Your task to perform on an android device: toggle data saver in the chrome app Image 0: 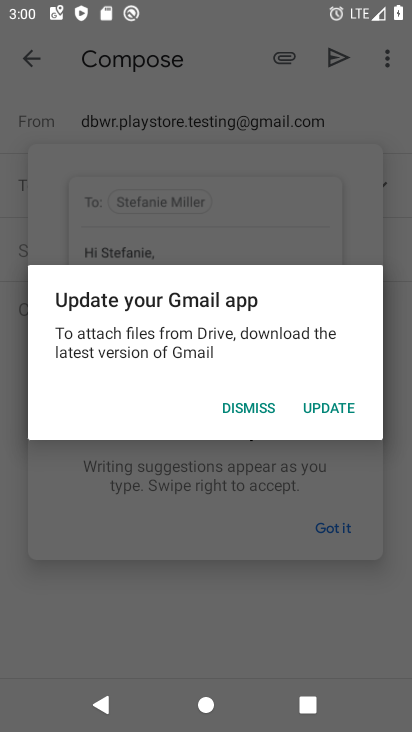
Step 0: press home button
Your task to perform on an android device: toggle data saver in the chrome app Image 1: 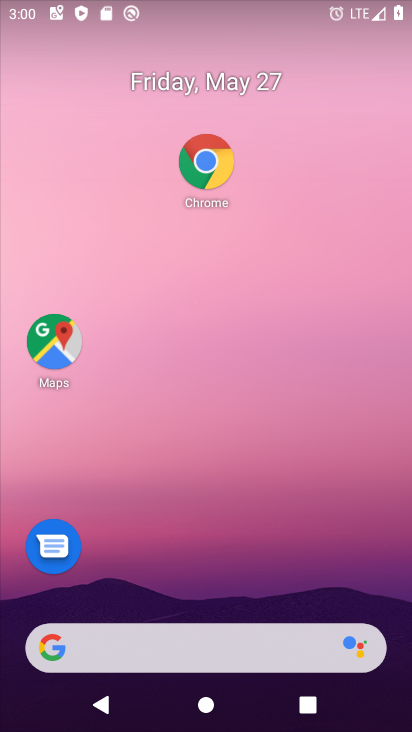
Step 1: click (210, 161)
Your task to perform on an android device: toggle data saver in the chrome app Image 2: 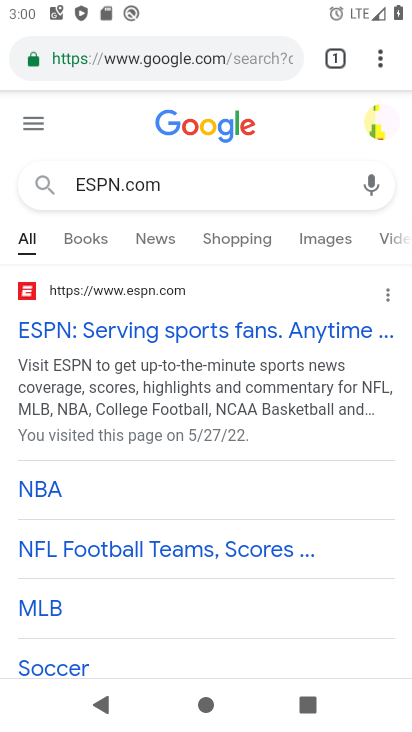
Step 2: click (383, 55)
Your task to perform on an android device: toggle data saver in the chrome app Image 3: 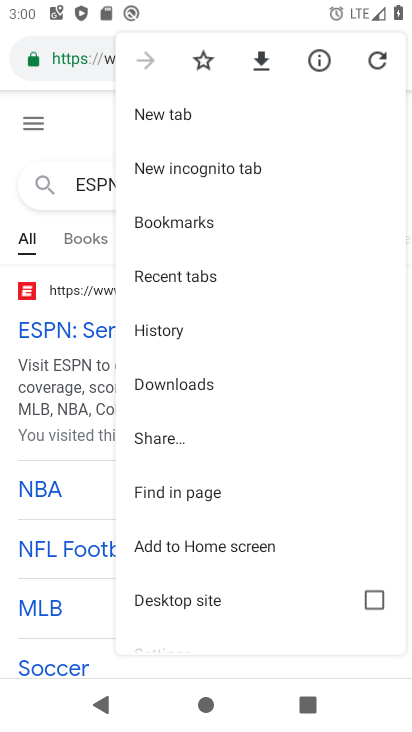
Step 3: drag from (157, 511) to (189, 201)
Your task to perform on an android device: toggle data saver in the chrome app Image 4: 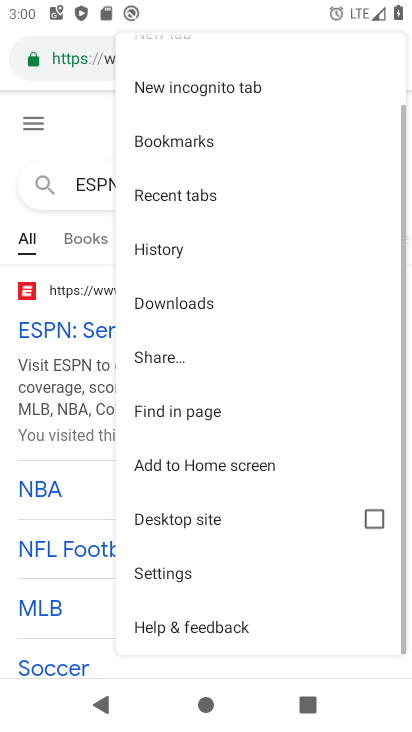
Step 4: click (162, 576)
Your task to perform on an android device: toggle data saver in the chrome app Image 5: 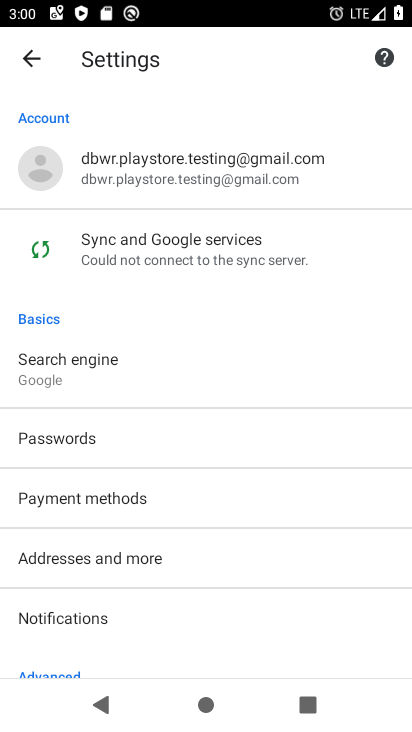
Step 5: drag from (46, 650) to (121, 243)
Your task to perform on an android device: toggle data saver in the chrome app Image 6: 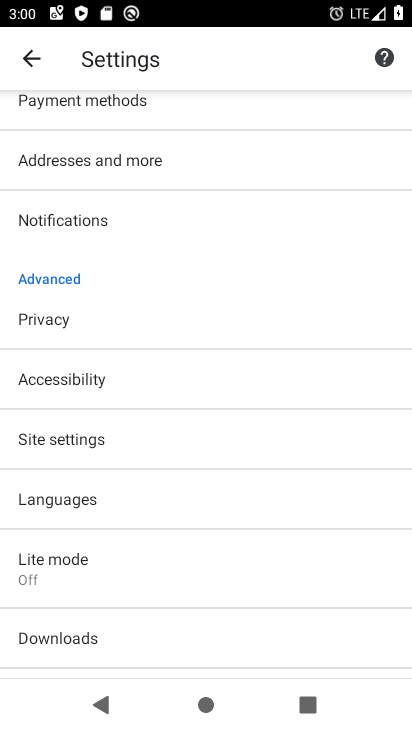
Step 6: click (51, 577)
Your task to perform on an android device: toggle data saver in the chrome app Image 7: 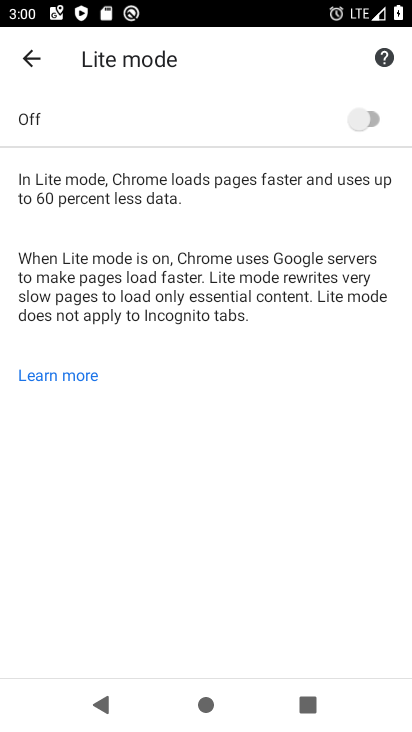
Step 7: click (358, 112)
Your task to perform on an android device: toggle data saver in the chrome app Image 8: 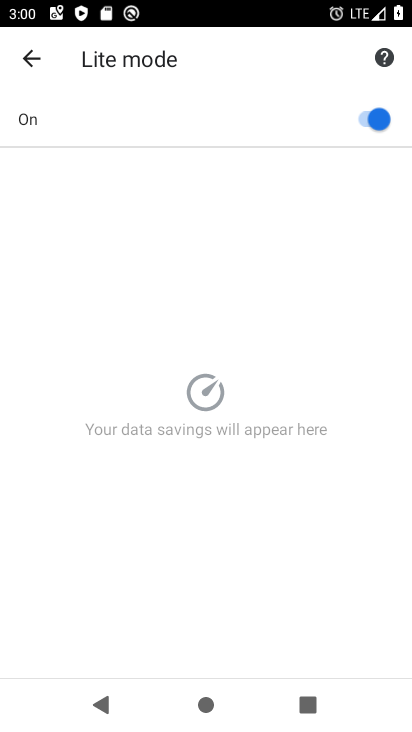
Step 8: task complete